Your task to perform on an android device: Is it going to rain tomorrow? Image 0: 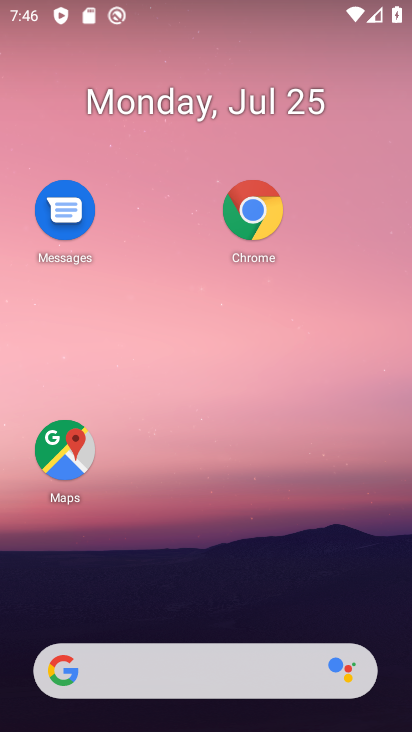
Step 0: click (185, 671)
Your task to perform on an android device: Is it going to rain tomorrow? Image 1: 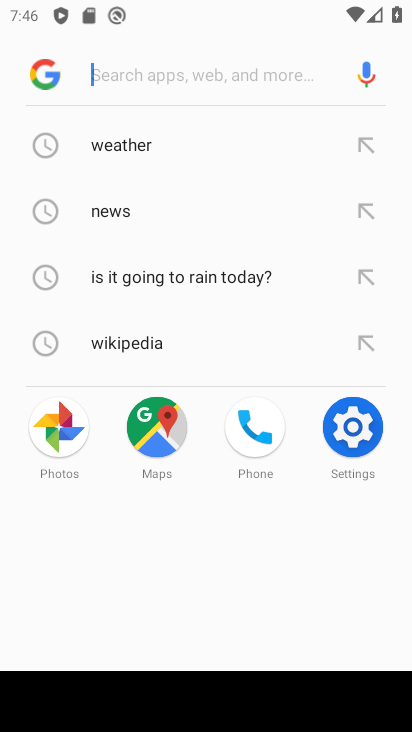
Step 1: click (82, 147)
Your task to perform on an android device: Is it going to rain tomorrow? Image 2: 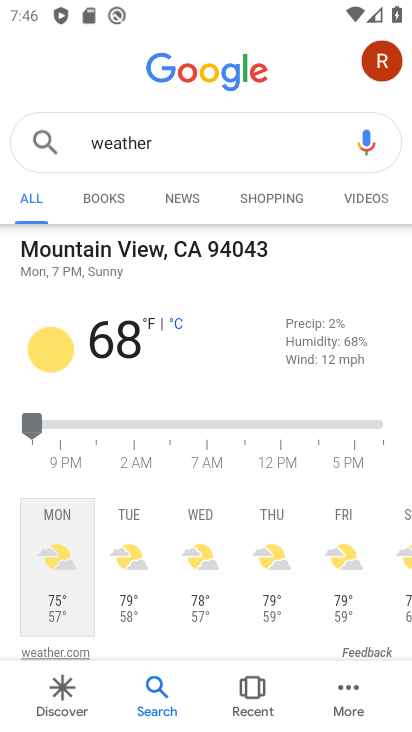
Step 2: click (117, 599)
Your task to perform on an android device: Is it going to rain tomorrow? Image 3: 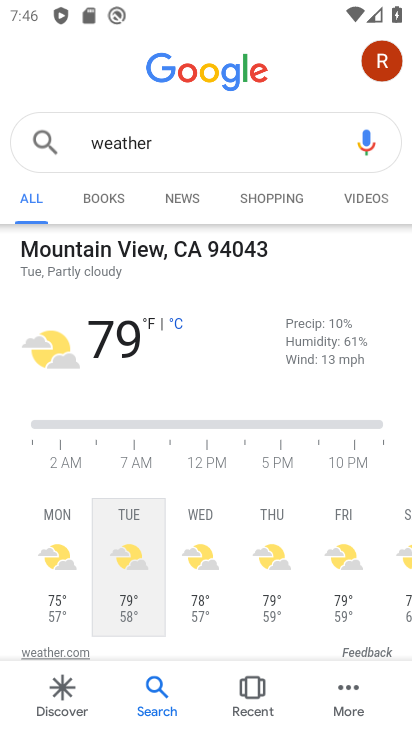
Step 3: task complete